Your task to perform on an android device: turn on the 24-hour format for clock Image 0: 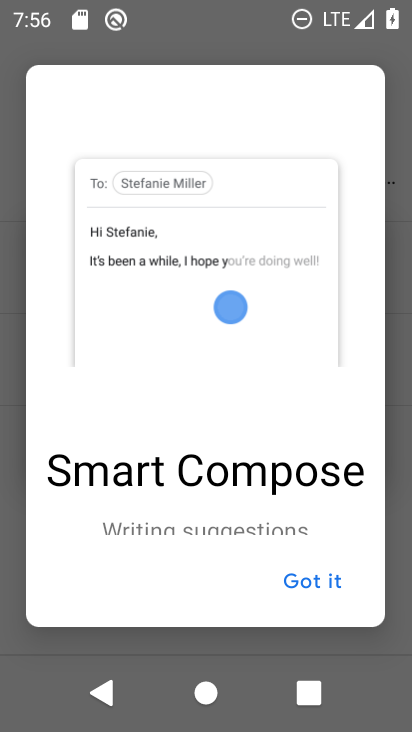
Step 0: press home button
Your task to perform on an android device: turn on the 24-hour format for clock Image 1: 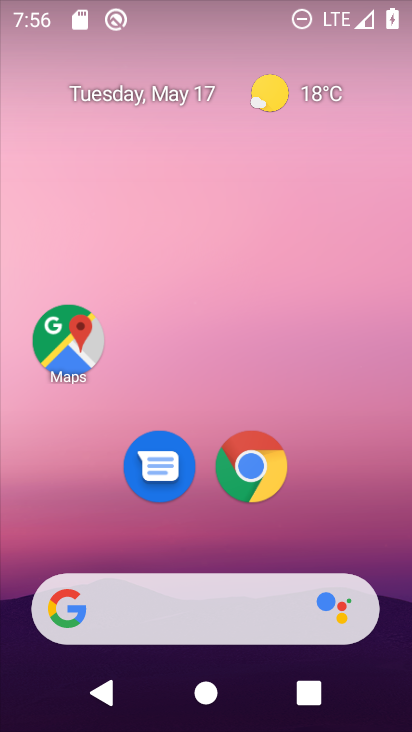
Step 1: drag from (160, 623) to (280, 250)
Your task to perform on an android device: turn on the 24-hour format for clock Image 2: 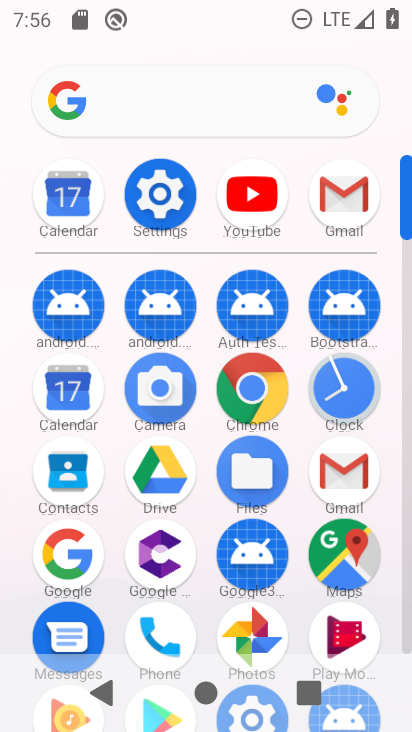
Step 2: click (347, 396)
Your task to perform on an android device: turn on the 24-hour format for clock Image 3: 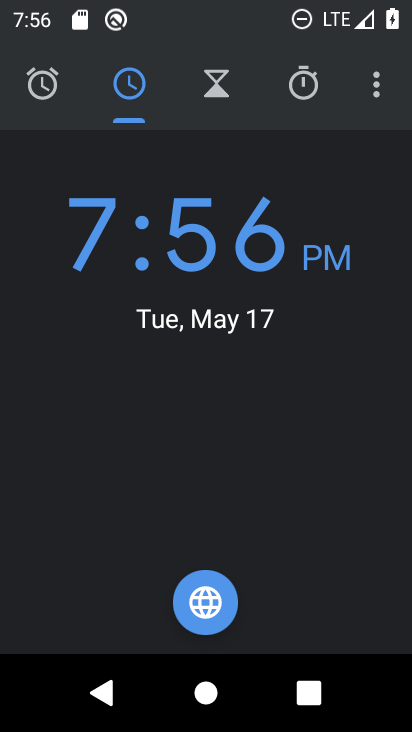
Step 3: click (380, 91)
Your task to perform on an android device: turn on the 24-hour format for clock Image 4: 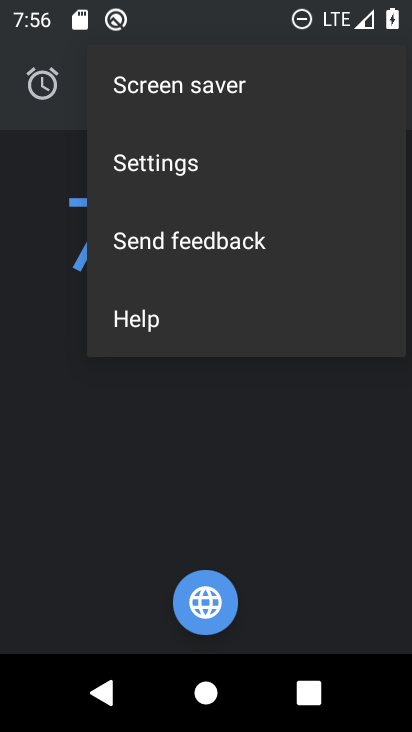
Step 4: click (197, 167)
Your task to perform on an android device: turn on the 24-hour format for clock Image 5: 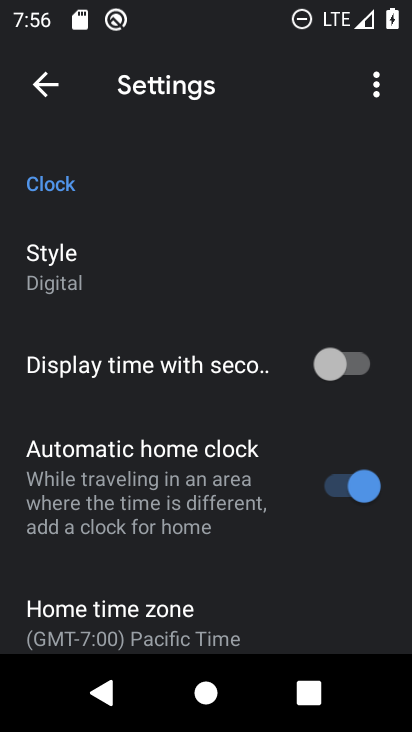
Step 5: drag from (190, 582) to (341, 168)
Your task to perform on an android device: turn on the 24-hour format for clock Image 6: 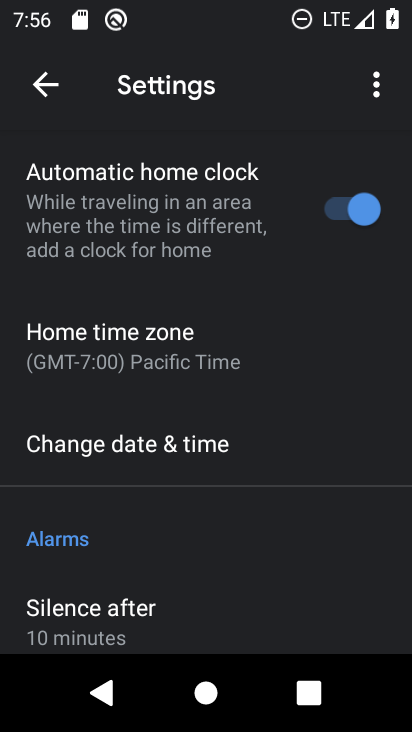
Step 6: click (185, 450)
Your task to perform on an android device: turn on the 24-hour format for clock Image 7: 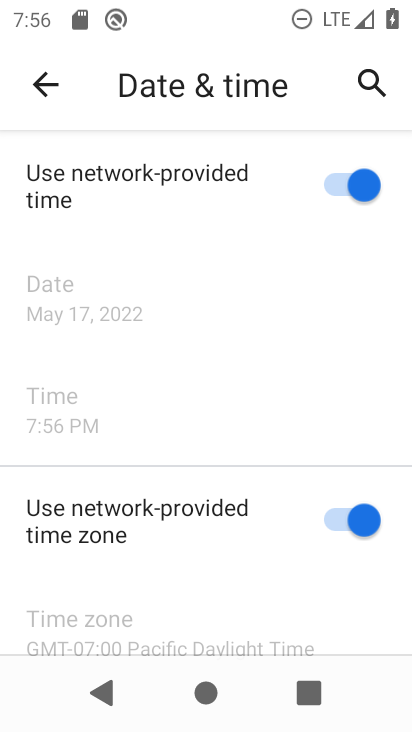
Step 7: drag from (198, 597) to (341, 251)
Your task to perform on an android device: turn on the 24-hour format for clock Image 8: 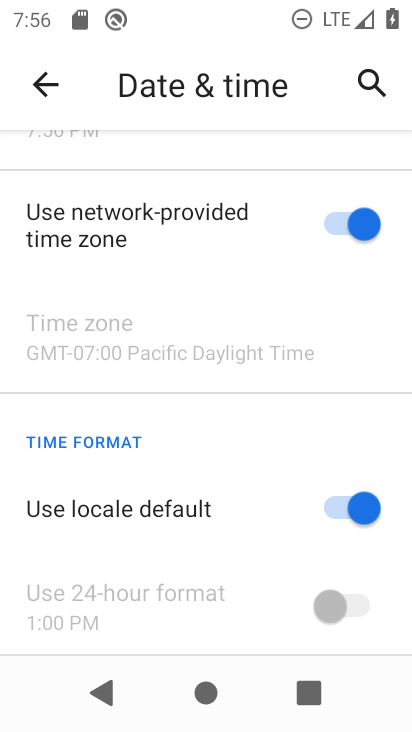
Step 8: drag from (222, 593) to (331, 305)
Your task to perform on an android device: turn on the 24-hour format for clock Image 9: 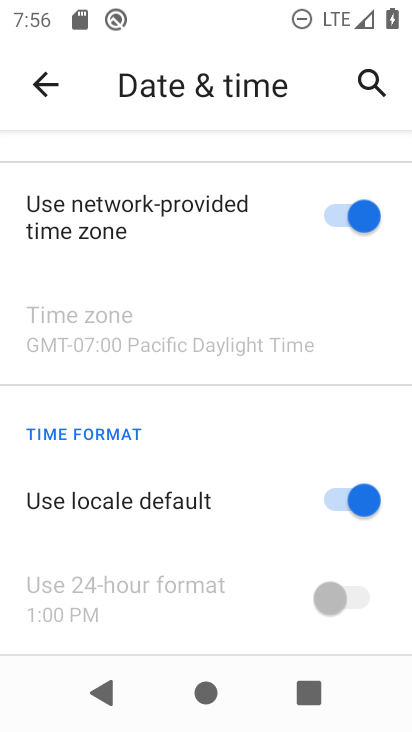
Step 9: click (340, 501)
Your task to perform on an android device: turn on the 24-hour format for clock Image 10: 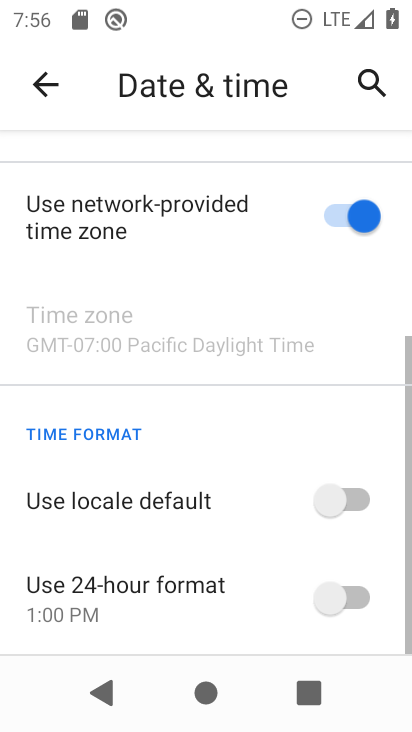
Step 10: click (352, 594)
Your task to perform on an android device: turn on the 24-hour format for clock Image 11: 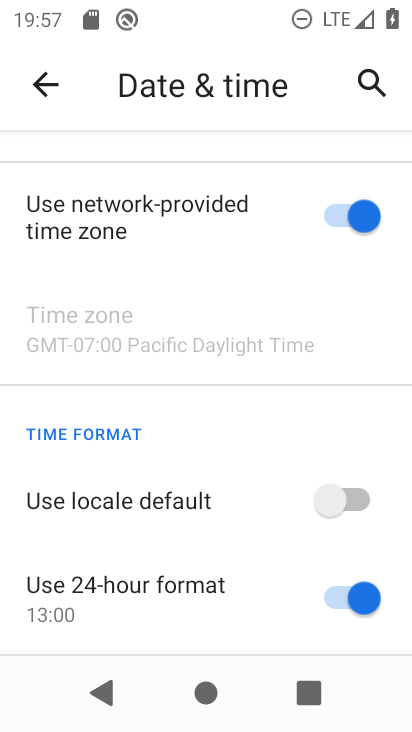
Step 11: task complete